Your task to perform on an android device: Go to wifi settings Image 0: 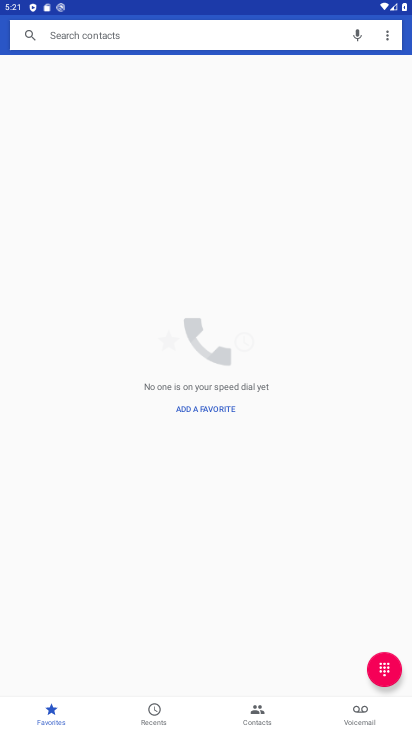
Step 0: press home button
Your task to perform on an android device: Go to wifi settings Image 1: 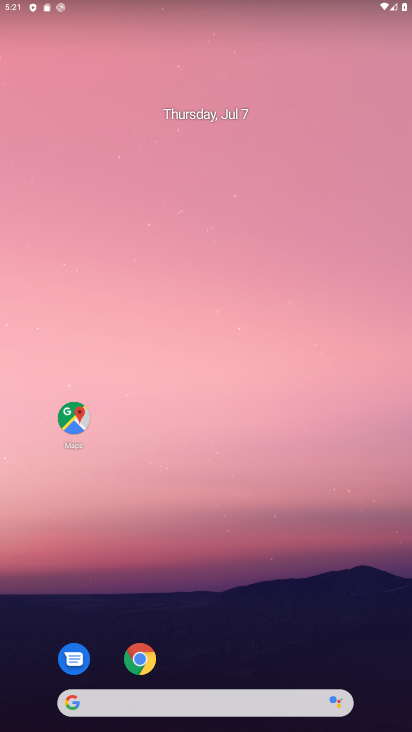
Step 1: drag from (245, 648) to (314, 234)
Your task to perform on an android device: Go to wifi settings Image 2: 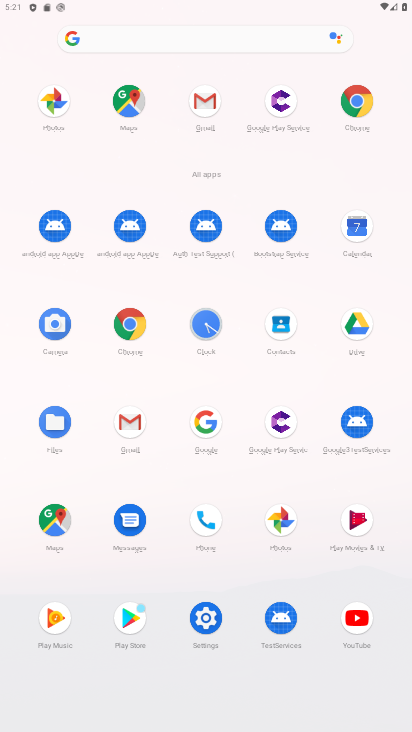
Step 2: click (196, 607)
Your task to perform on an android device: Go to wifi settings Image 3: 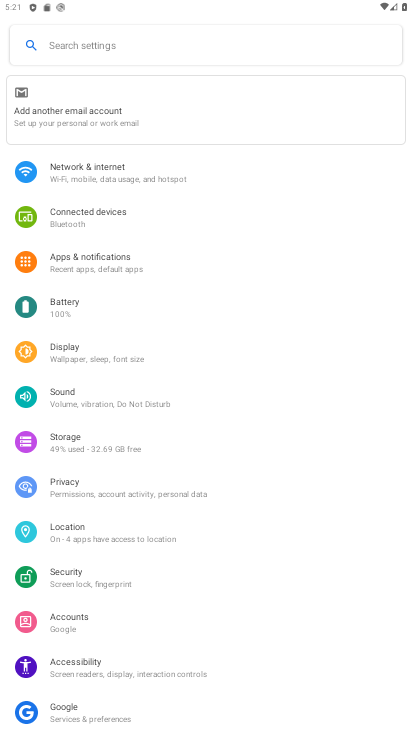
Step 3: click (170, 173)
Your task to perform on an android device: Go to wifi settings Image 4: 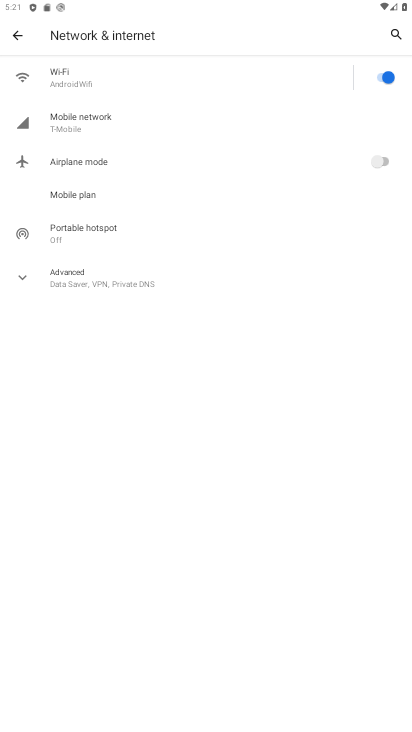
Step 4: click (128, 84)
Your task to perform on an android device: Go to wifi settings Image 5: 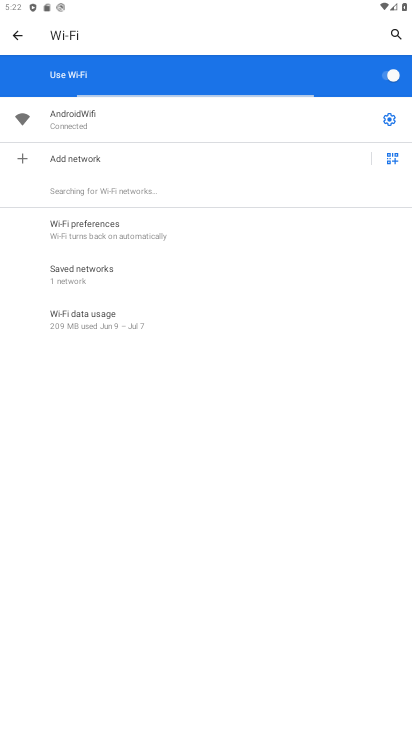
Step 5: task complete